Your task to perform on an android device: open a new tab in the chrome app Image 0: 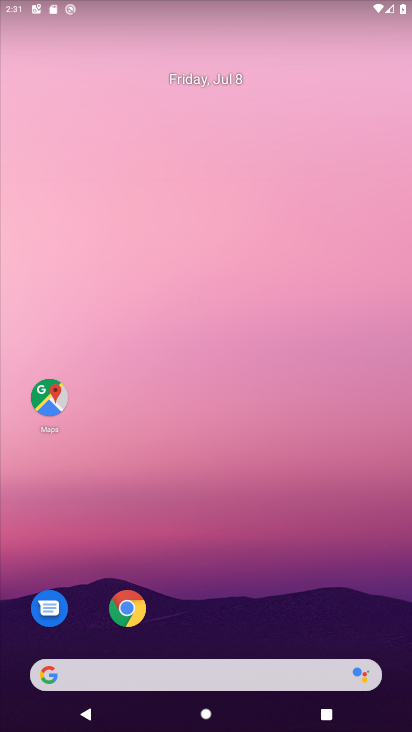
Step 0: click (208, 287)
Your task to perform on an android device: open a new tab in the chrome app Image 1: 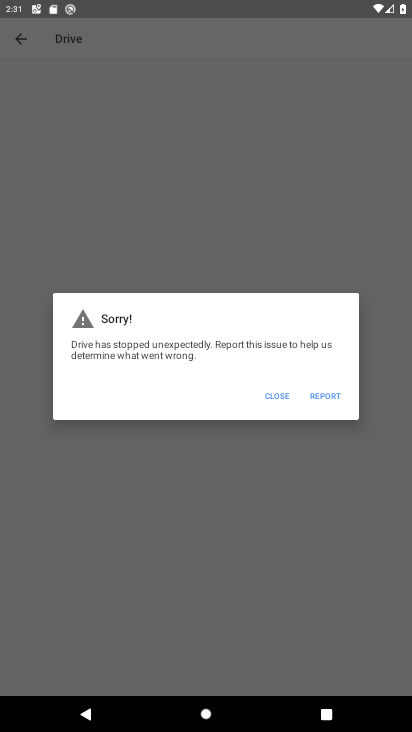
Step 1: click (287, 403)
Your task to perform on an android device: open a new tab in the chrome app Image 2: 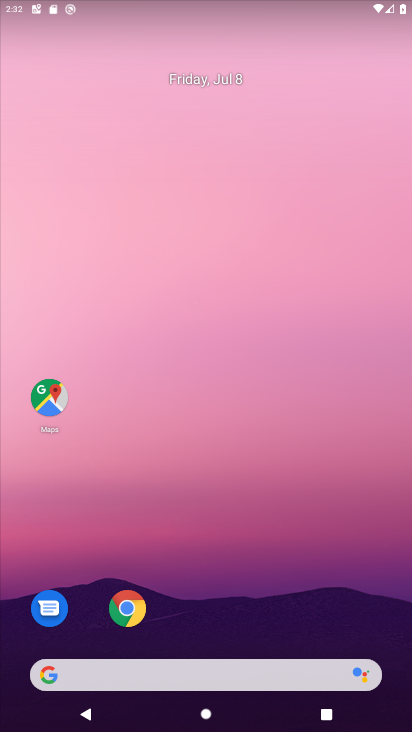
Step 2: click (233, 187)
Your task to perform on an android device: open a new tab in the chrome app Image 3: 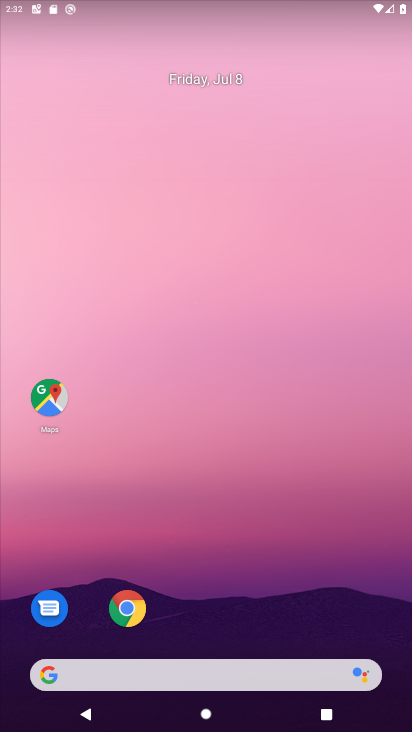
Step 3: click (125, 592)
Your task to perform on an android device: open a new tab in the chrome app Image 4: 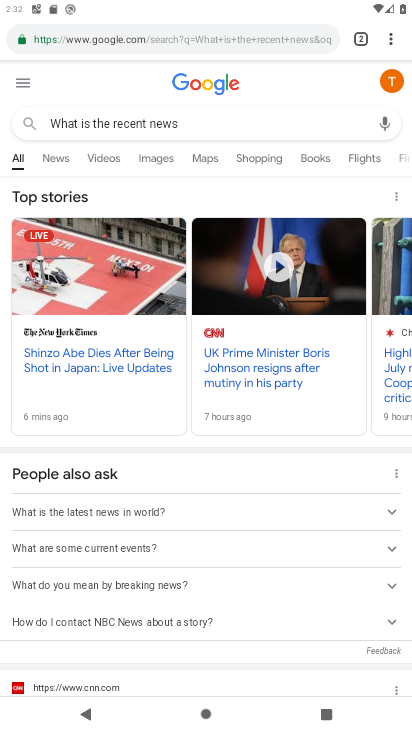
Step 4: click (403, 31)
Your task to perform on an android device: open a new tab in the chrome app Image 5: 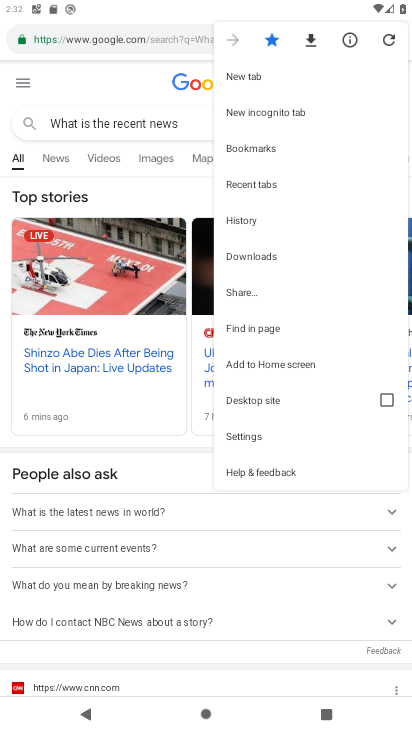
Step 5: click (259, 74)
Your task to perform on an android device: open a new tab in the chrome app Image 6: 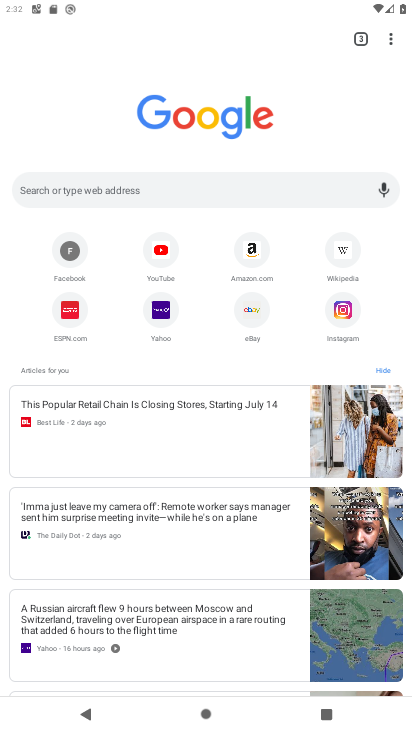
Step 6: task complete